Your task to perform on an android device: Open display settings Image 0: 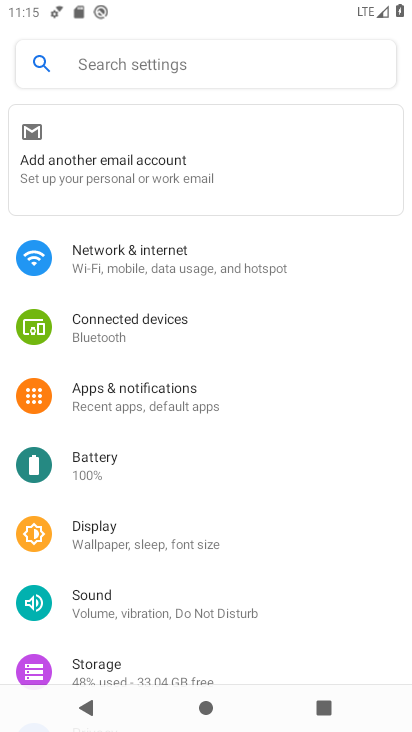
Step 0: drag from (230, 607) to (248, 201)
Your task to perform on an android device: Open display settings Image 1: 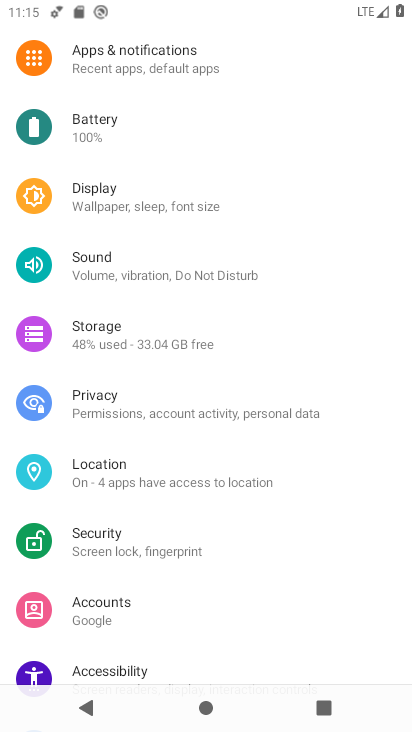
Step 1: click (151, 203)
Your task to perform on an android device: Open display settings Image 2: 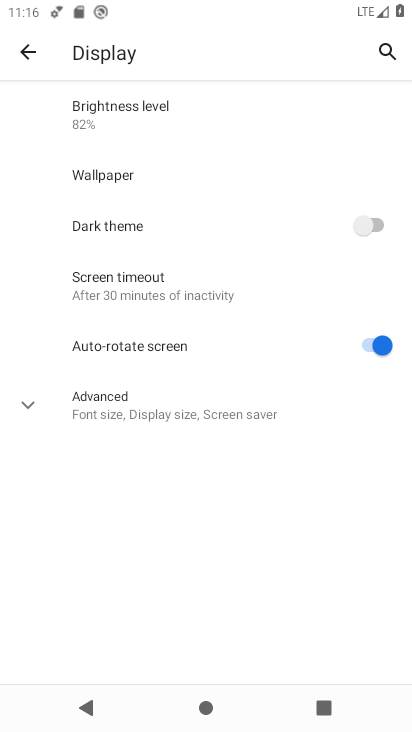
Step 2: task complete